Your task to perform on an android device: toggle location history Image 0: 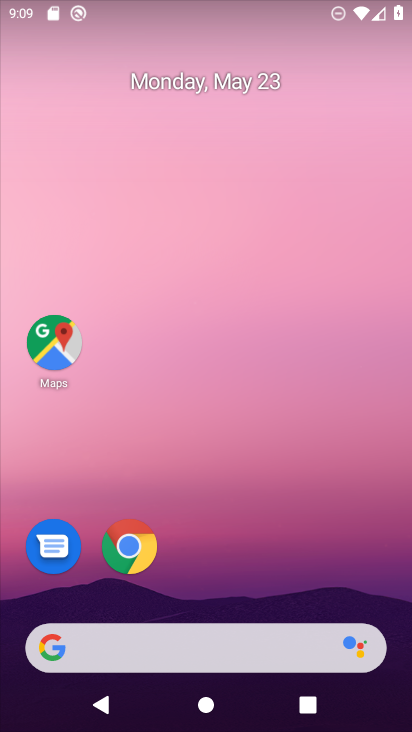
Step 0: drag from (277, 513) to (255, 114)
Your task to perform on an android device: toggle location history Image 1: 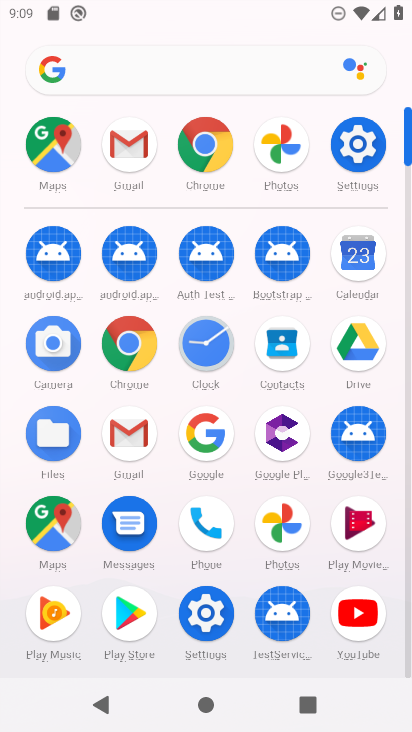
Step 1: click (357, 143)
Your task to perform on an android device: toggle location history Image 2: 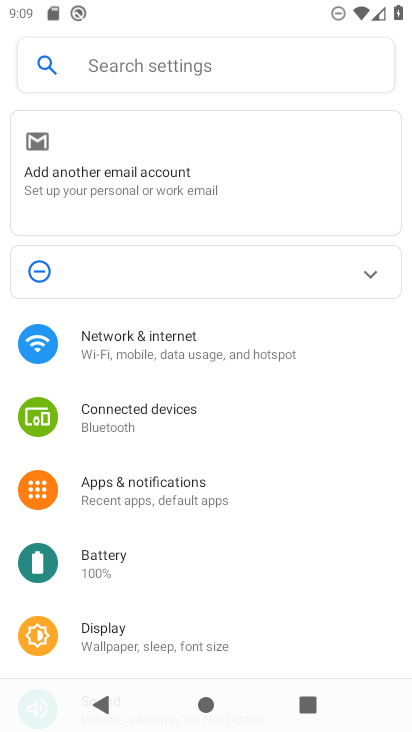
Step 2: drag from (171, 602) to (334, 32)
Your task to perform on an android device: toggle location history Image 3: 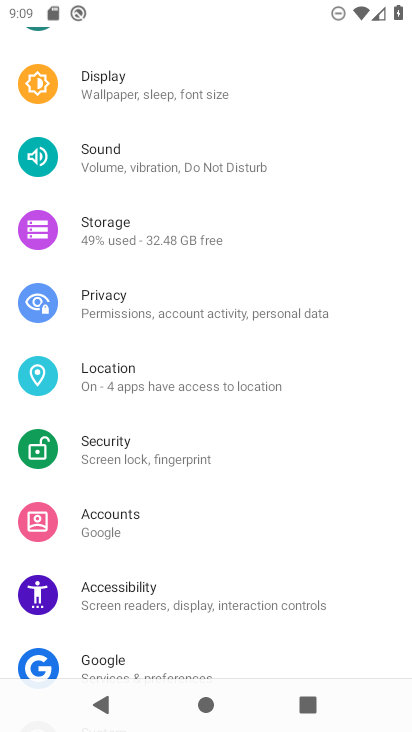
Step 3: click (187, 381)
Your task to perform on an android device: toggle location history Image 4: 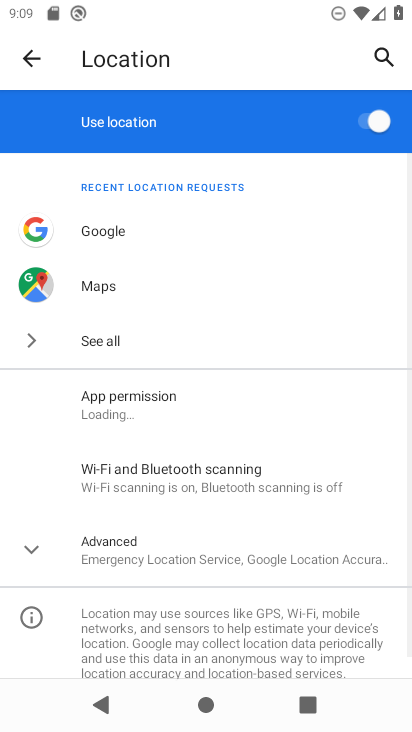
Step 4: click (210, 554)
Your task to perform on an android device: toggle location history Image 5: 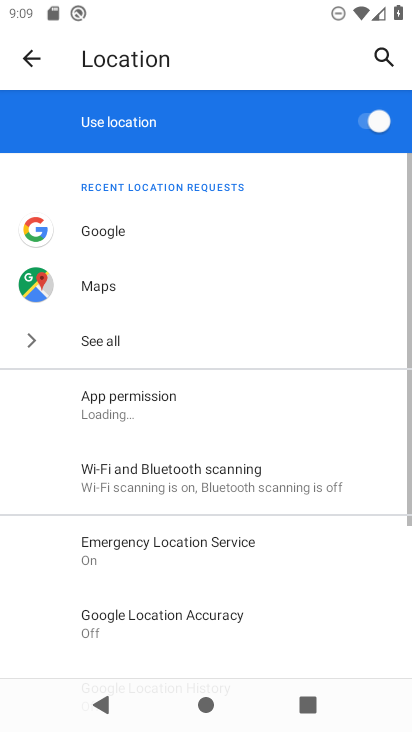
Step 5: drag from (212, 566) to (277, 242)
Your task to perform on an android device: toggle location history Image 6: 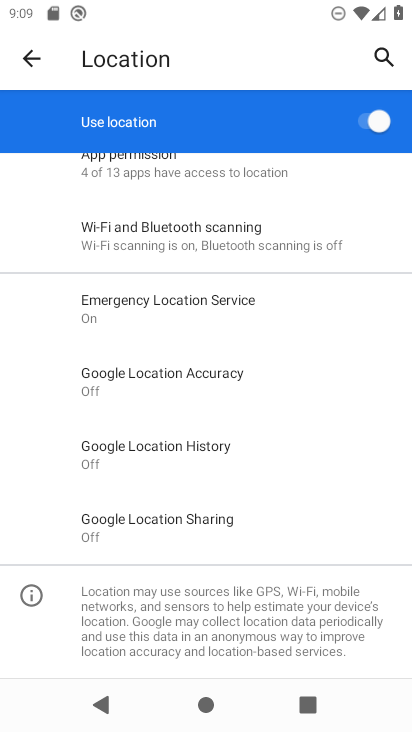
Step 6: click (214, 455)
Your task to perform on an android device: toggle location history Image 7: 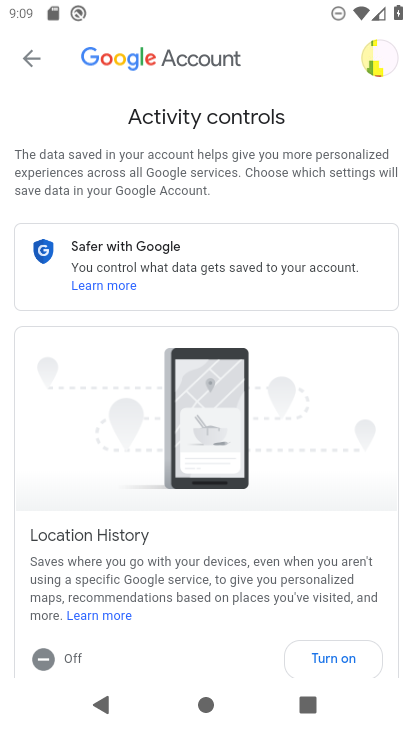
Step 7: drag from (287, 313) to (320, 4)
Your task to perform on an android device: toggle location history Image 8: 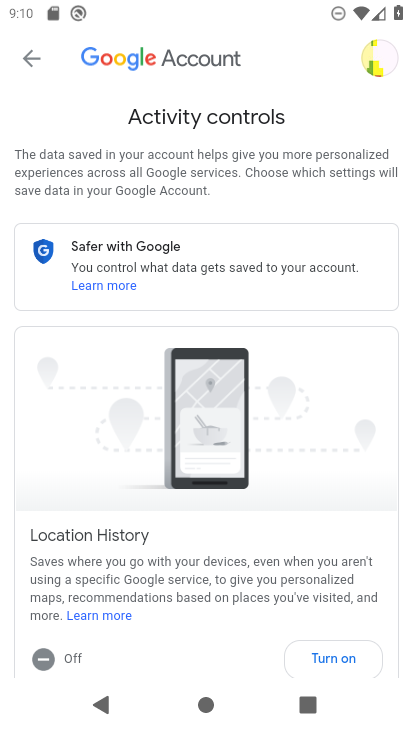
Step 8: click (360, 658)
Your task to perform on an android device: toggle location history Image 9: 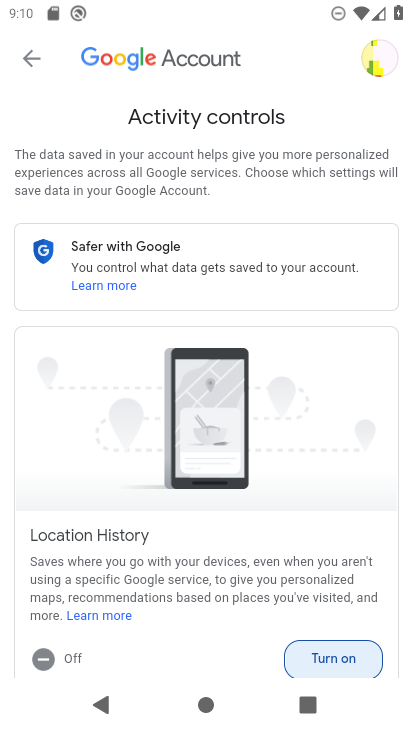
Step 9: click (345, 656)
Your task to perform on an android device: toggle location history Image 10: 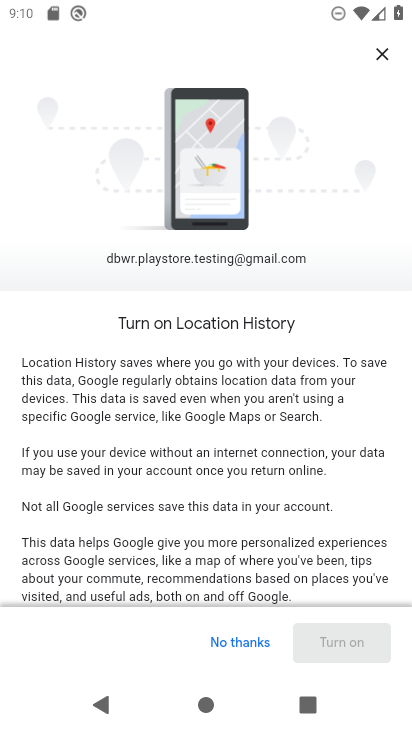
Step 10: drag from (336, 549) to (376, 182)
Your task to perform on an android device: toggle location history Image 11: 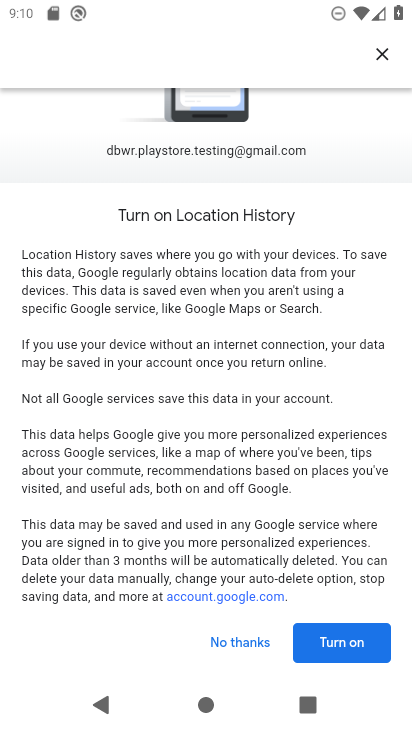
Step 11: click (334, 639)
Your task to perform on an android device: toggle location history Image 12: 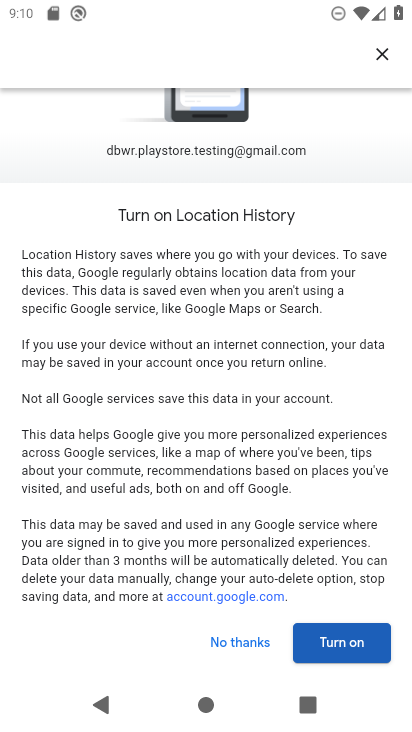
Step 12: click (349, 638)
Your task to perform on an android device: toggle location history Image 13: 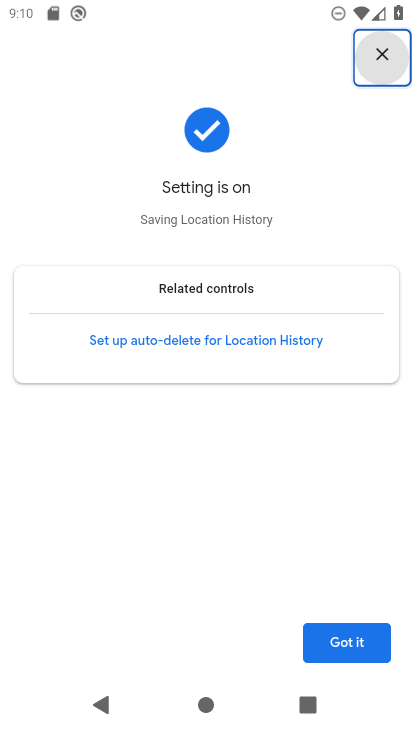
Step 13: task complete